Your task to perform on an android device: Go to privacy settings Image 0: 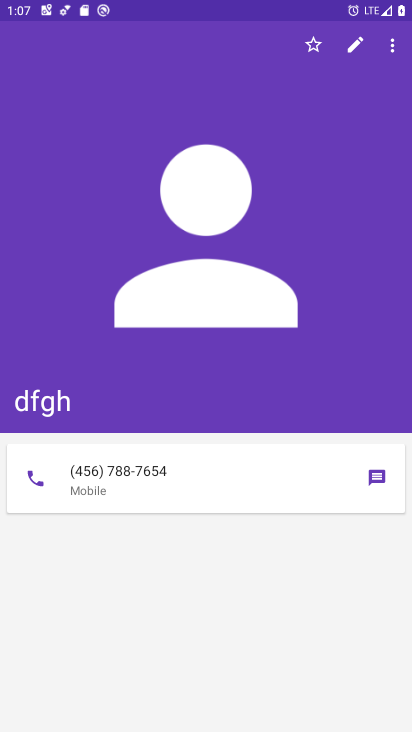
Step 0: press home button
Your task to perform on an android device: Go to privacy settings Image 1: 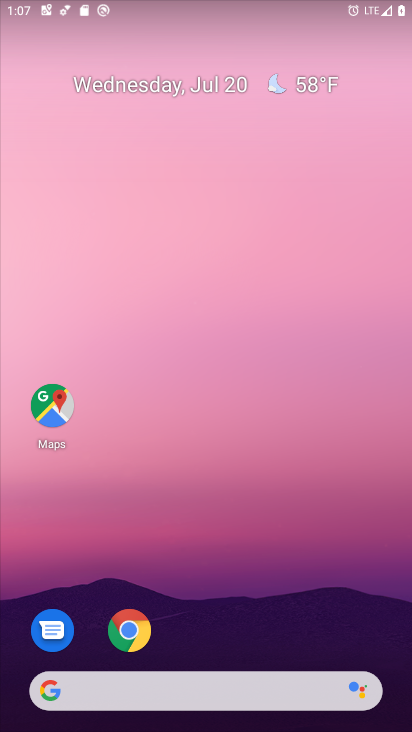
Step 1: drag from (231, 631) to (258, 12)
Your task to perform on an android device: Go to privacy settings Image 2: 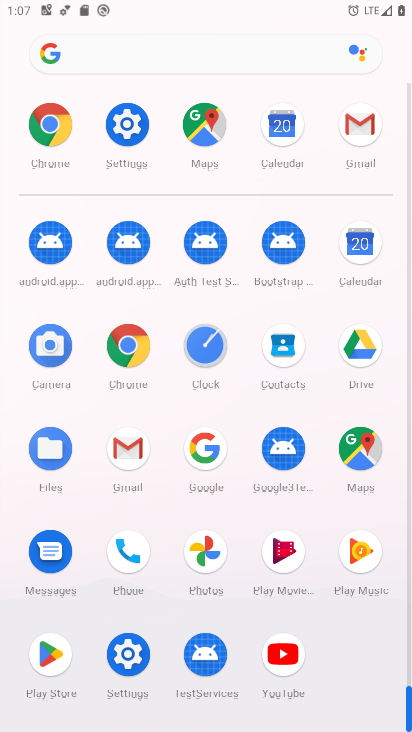
Step 2: click (135, 119)
Your task to perform on an android device: Go to privacy settings Image 3: 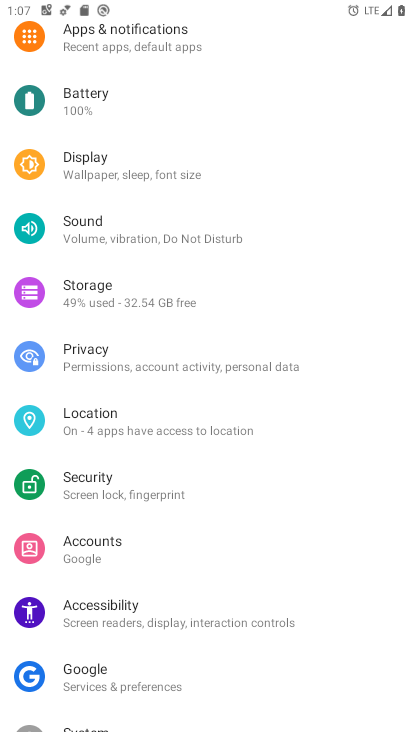
Step 3: click (152, 367)
Your task to perform on an android device: Go to privacy settings Image 4: 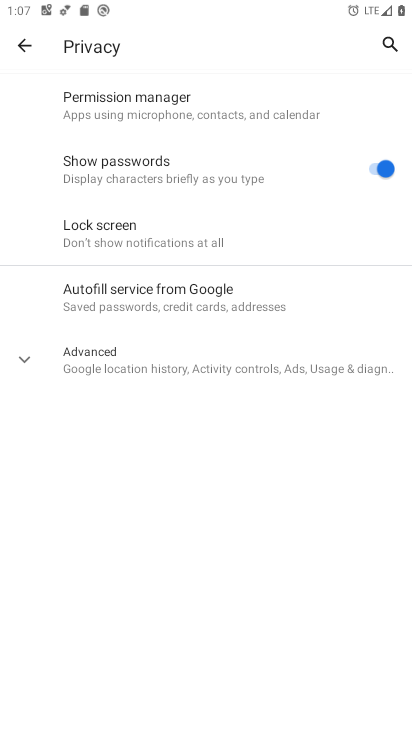
Step 4: task complete